Your task to perform on an android device: change text size in settings app Image 0: 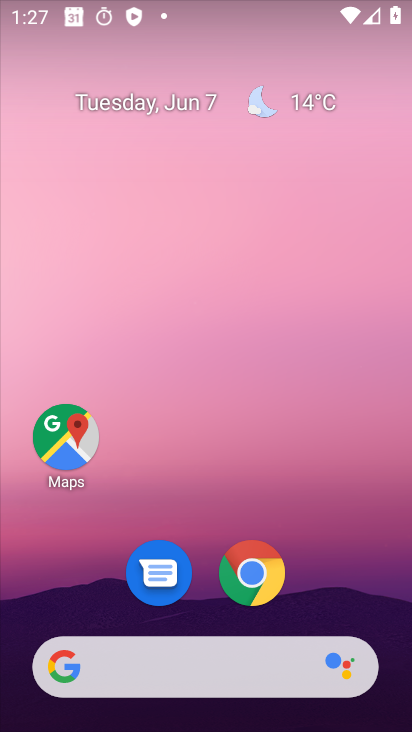
Step 0: drag from (208, 609) to (224, 3)
Your task to perform on an android device: change text size in settings app Image 1: 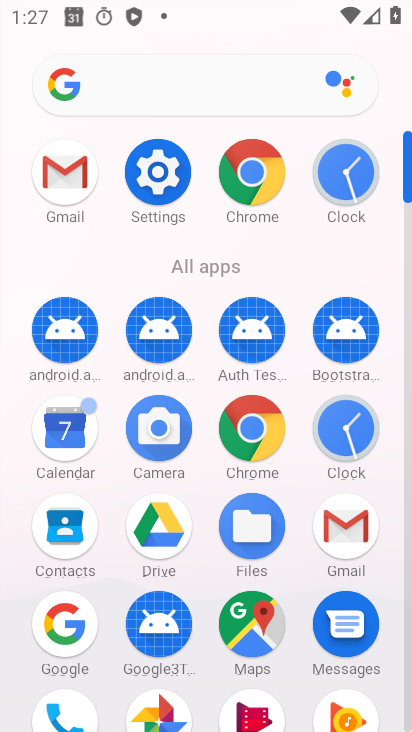
Step 1: click (156, 169)
Your task to perform on an android device: change text size in settings app Image 2: 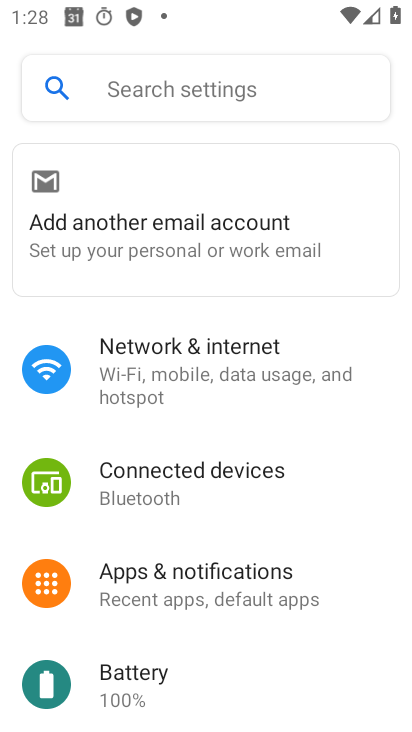
Step 2: drag from (197, 606) to (233, 76)
Your task to perform on an android device: change text size in settings app Image 3: 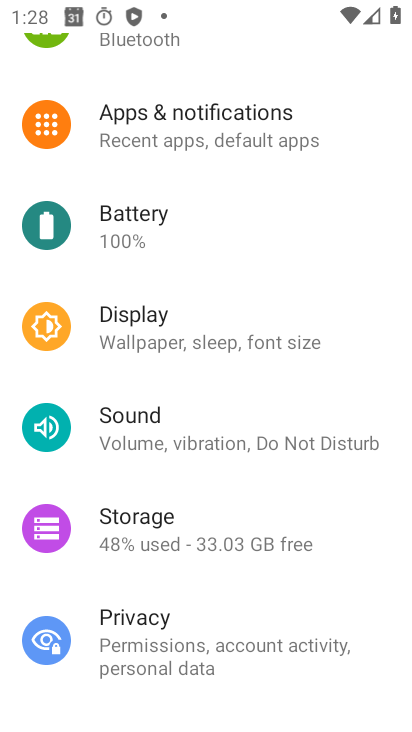
Step 3: click (179, 320)
Your task to perform on an android device: change text size in settings app Image 4: 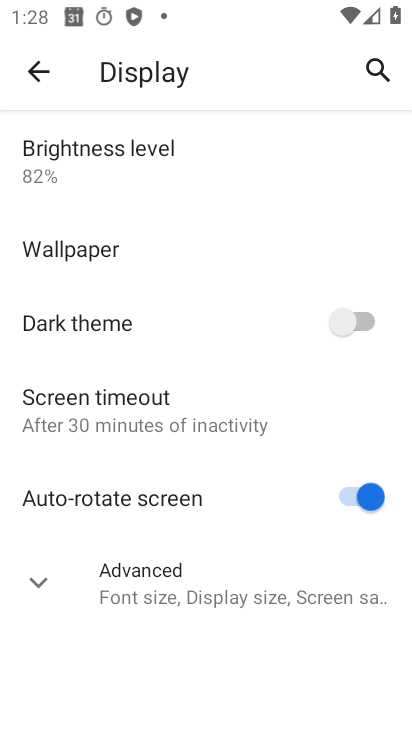
Step 4: click (41, 581)
Your task to perform on an android device: change text size in settings app Image 5: 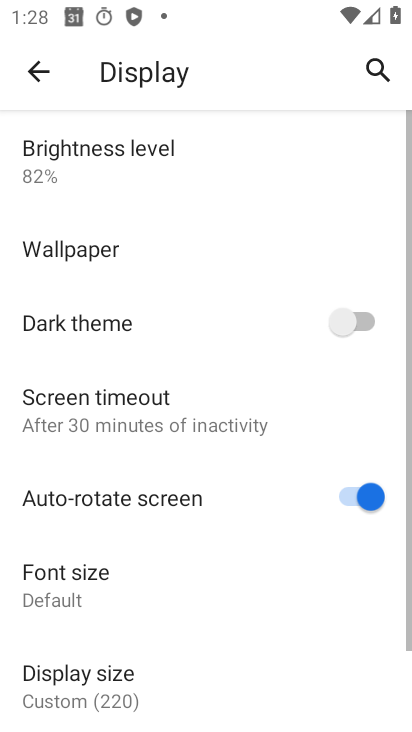
Step 5: click (123, 571)
Your task to perform on an android device: change text size in settings app Image 6: 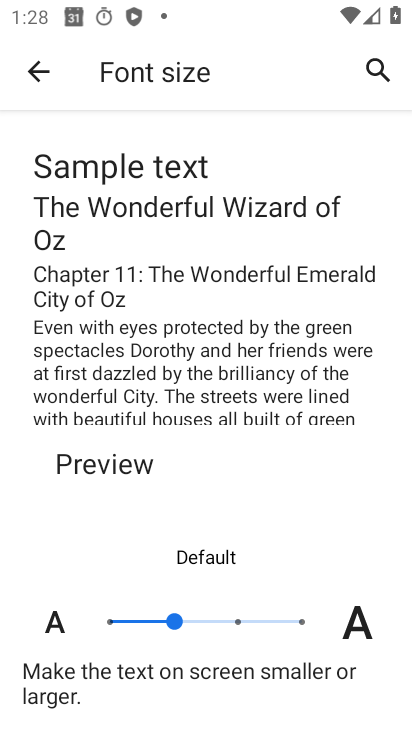
Step 6: click (111, 613)
Your task to perform on an android device: change text size in settings app Image 7: 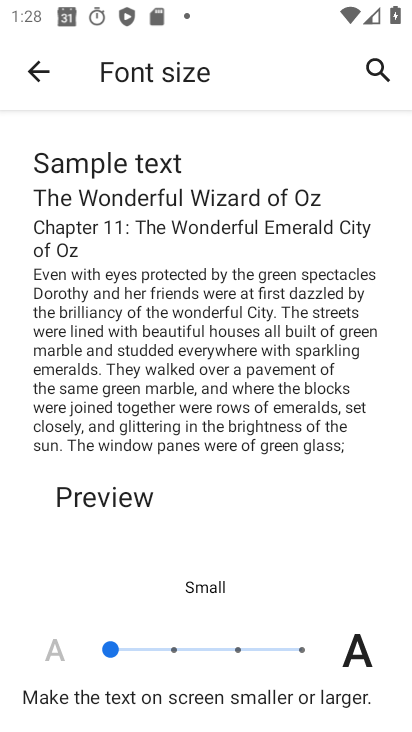
Step 7: task complete